Your task to perform on an android device: open chrome privacy settings Image 0: 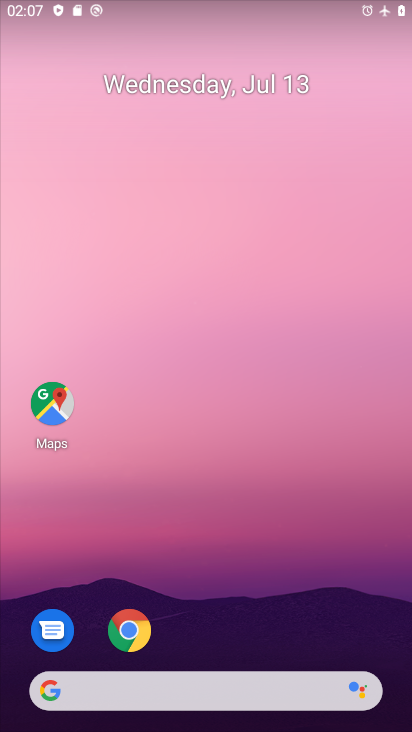
Step 0: click (220, 217)
Your task to perform on an android device: open chrome privacy settings Image 1: 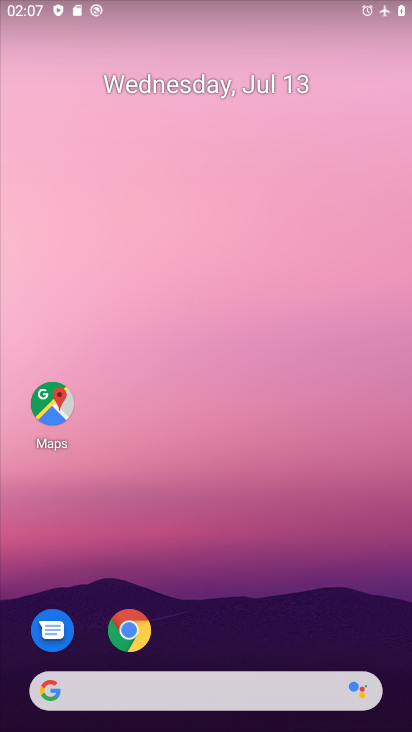
Step 1: drag from (217, 625) to (182, 216)
Your task to perform on an android device: open chrome privacy settings Image 2: 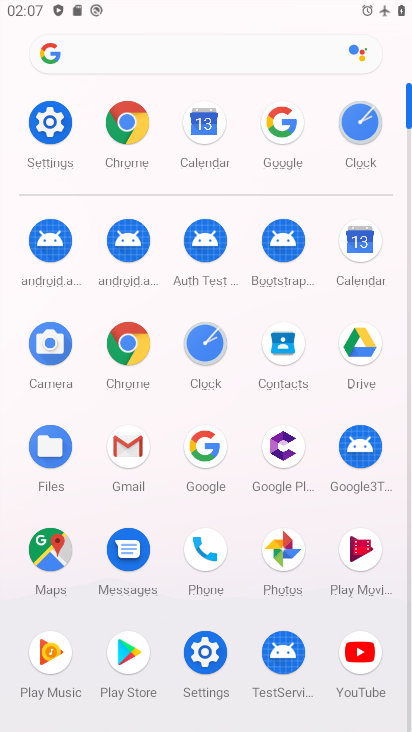
Step 2: click (150, 153)
Your task to perform on an android device: open chrome privacy settings Image 3: 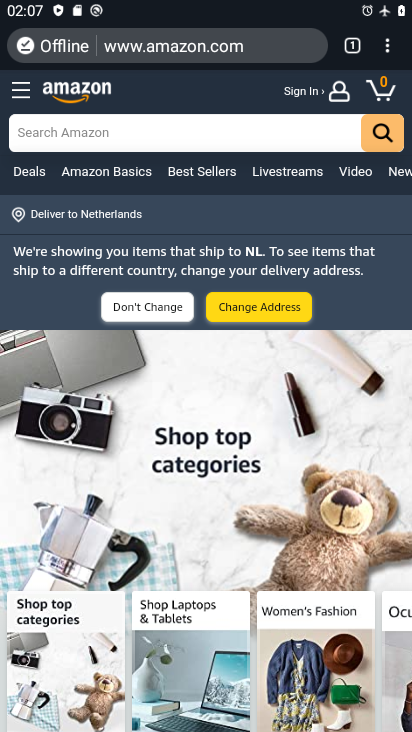
Step 3: click (393, 53)
Your task to perform on an android device: open chrome privacy settings Image 4: 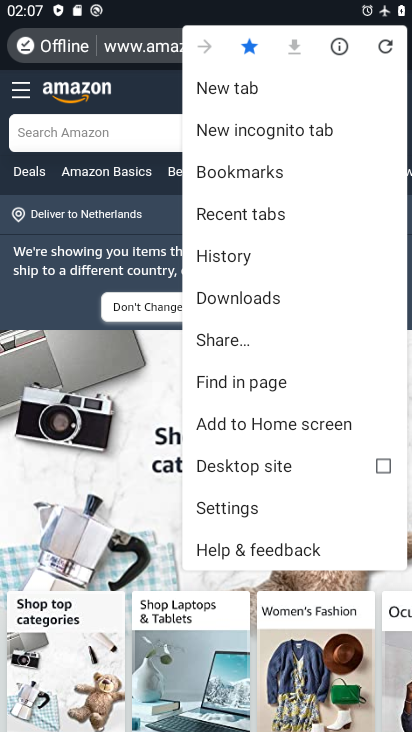
Step 4: click (269, 515)
Your task to perform on an android device: open chrome privacy settings Image 5: 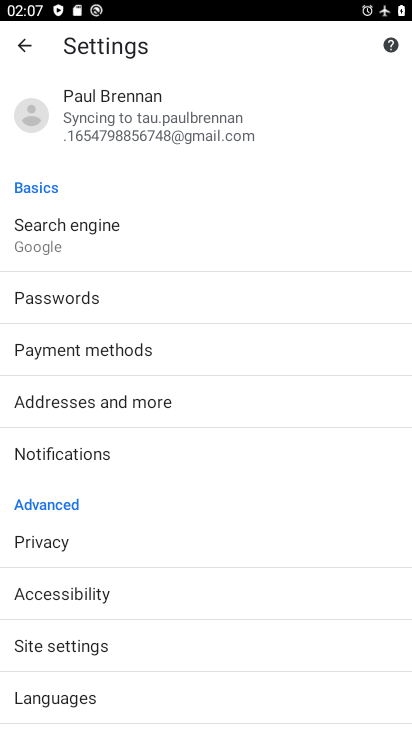
Step 5: click (88, 555)
Your task to perform on an android device: open chrome privacy settings Image 6: 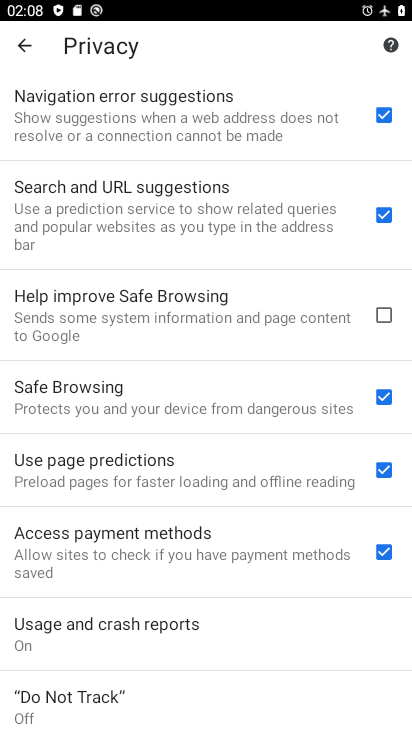
Step 6: task complete